Your task to perform on an android device: Clear the shopping cart on bestbuy.com. Add corsair k70 to the cart on bestbuy.com, then select checkout. Image 0: 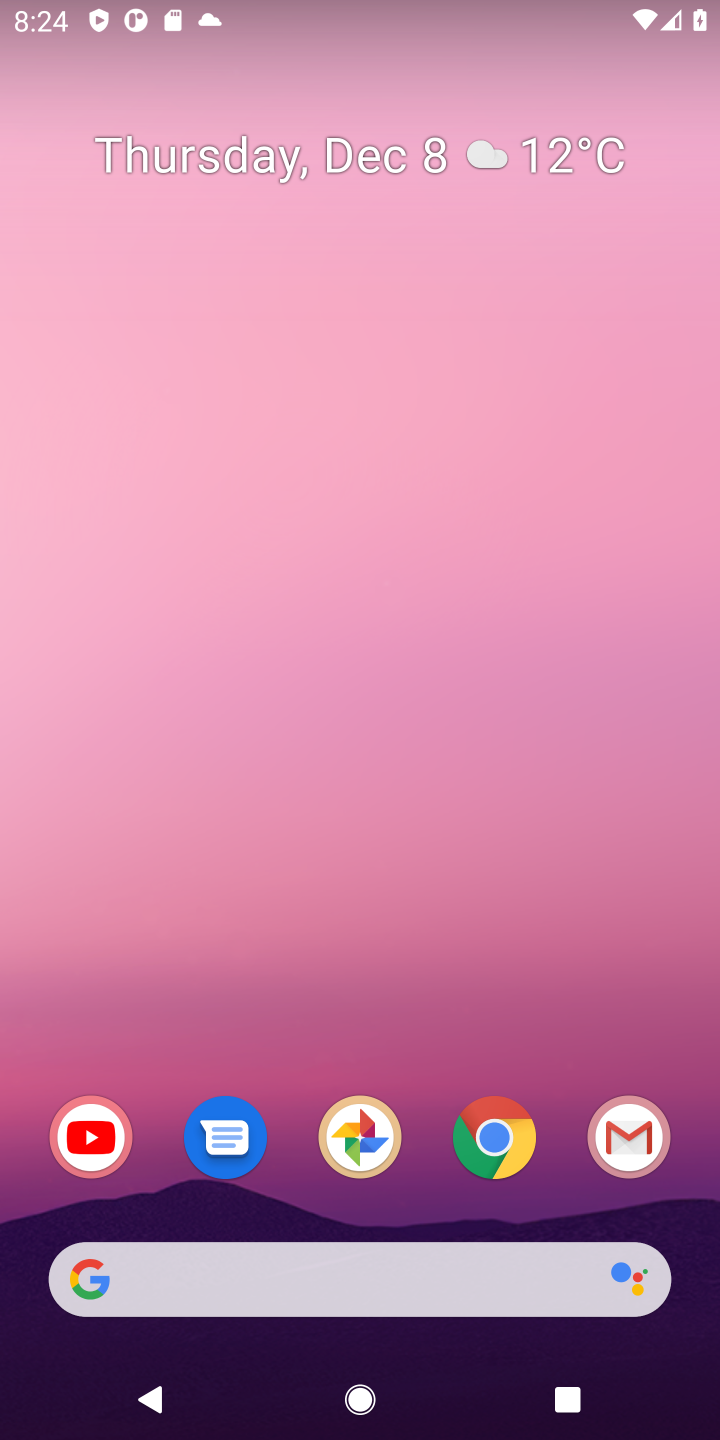
Step 0: click (488, 1160)
Your task to perform on an android device: Clear the shopping cart on bestbuy.com. Add corsair k70 to the cart on bestbuy.com, then select checkout. Image 1: 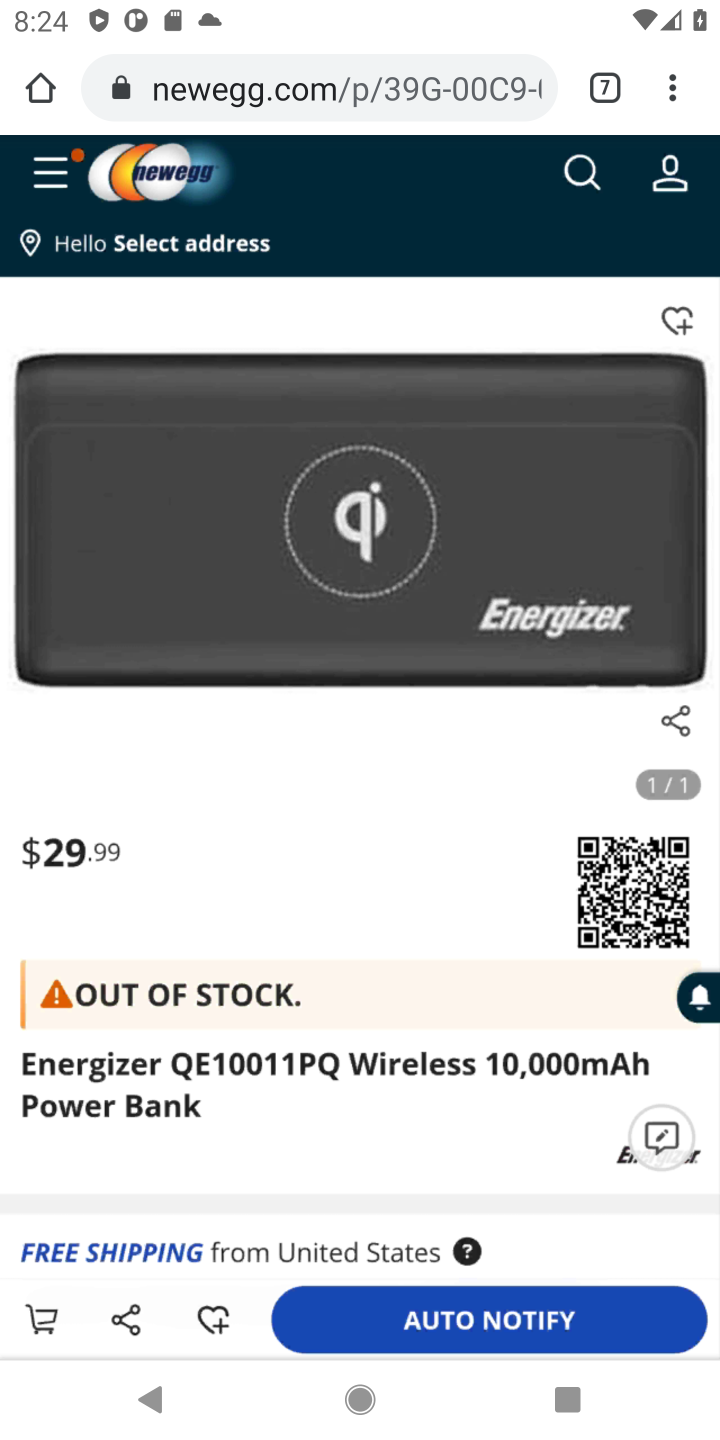
Step 1: click (580, 163)
Your task to perform on an android device: Clear the shopping cart on bestbuy.com. Add corsair k70 to the cart on bestbuy.com, then select checkout. Image 2: 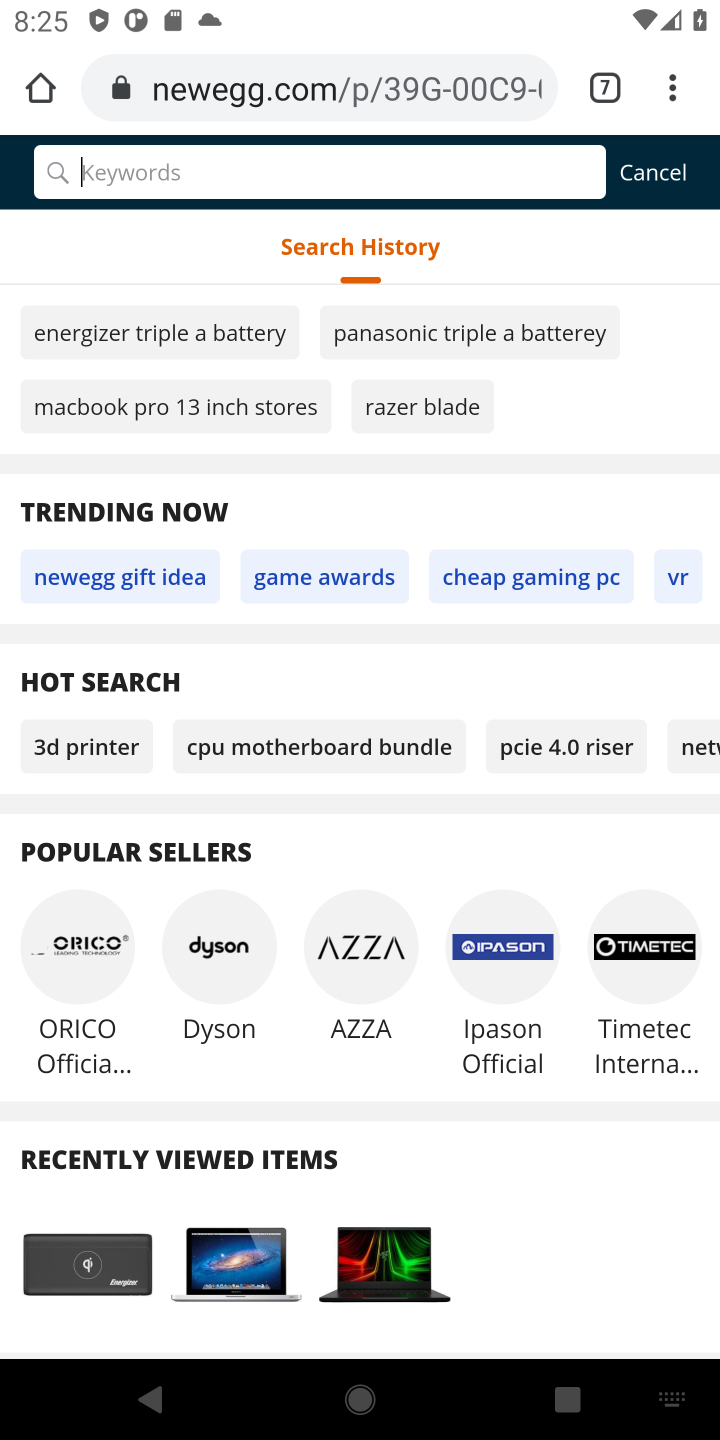
Step 2: click (605, 90)
Your task to perform on an android device: Clear the shopping cart on bestbuy.com. Add corsair k70 to the cart on bestbuy.com, then select checkout. Image 3: 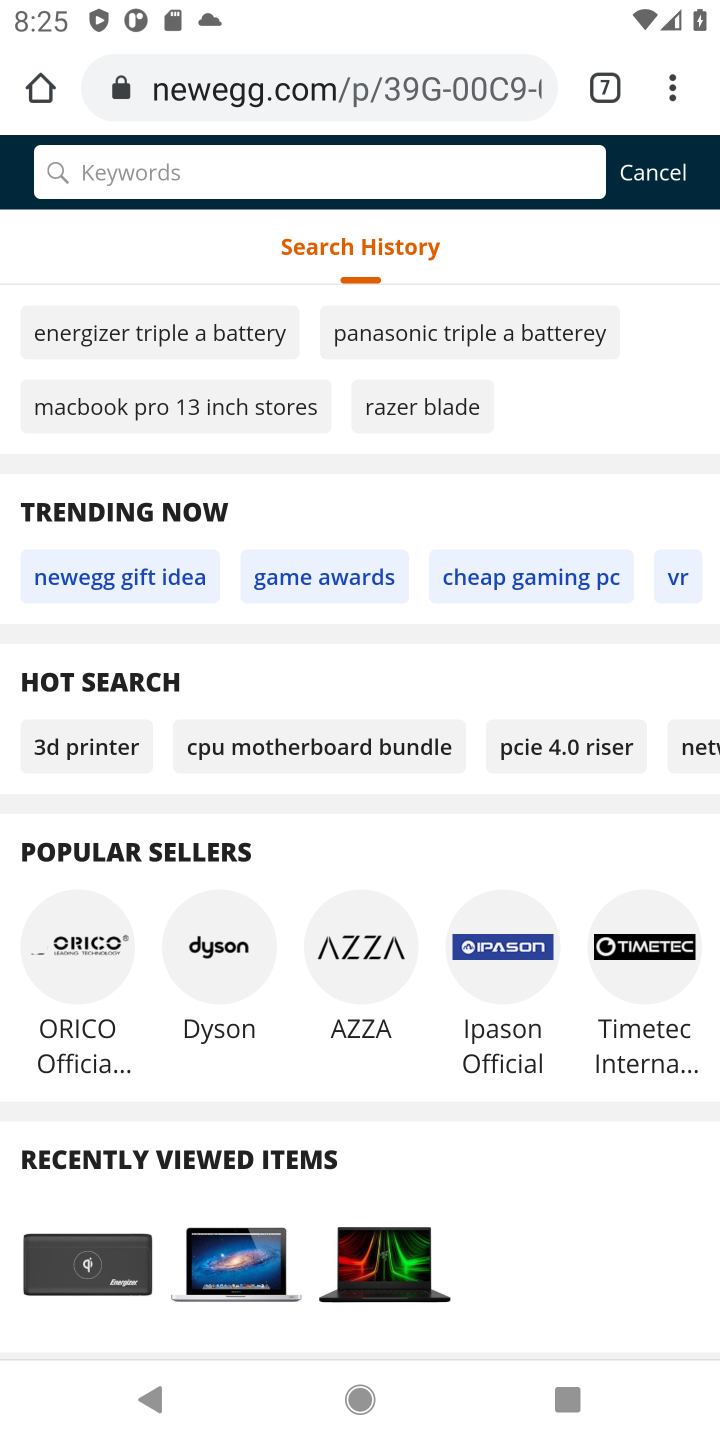
Step 3: click (605, 90)
Your task to perform on an android device: Clear the shopping cart on bestbuy.com. Add corsair k70 to the cart on bestbuy.com, then select checkout. Image 4: 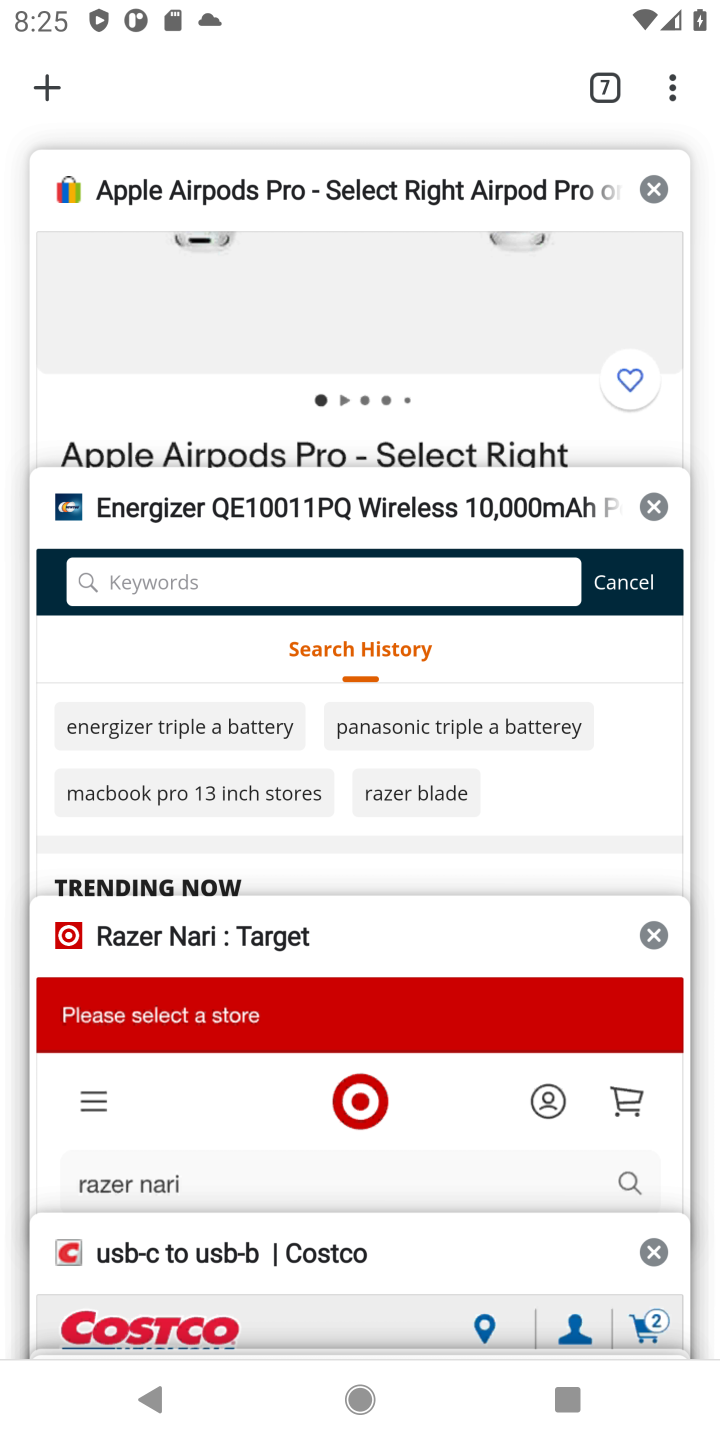
Step 4: drag from (290, 1292) to (476, 524)
Your task to perform on an android device: Clear the shopping cart on bestbuy.com. Add corsair k70 to the cart on bestbuy.com, then select checkout. Image 5: 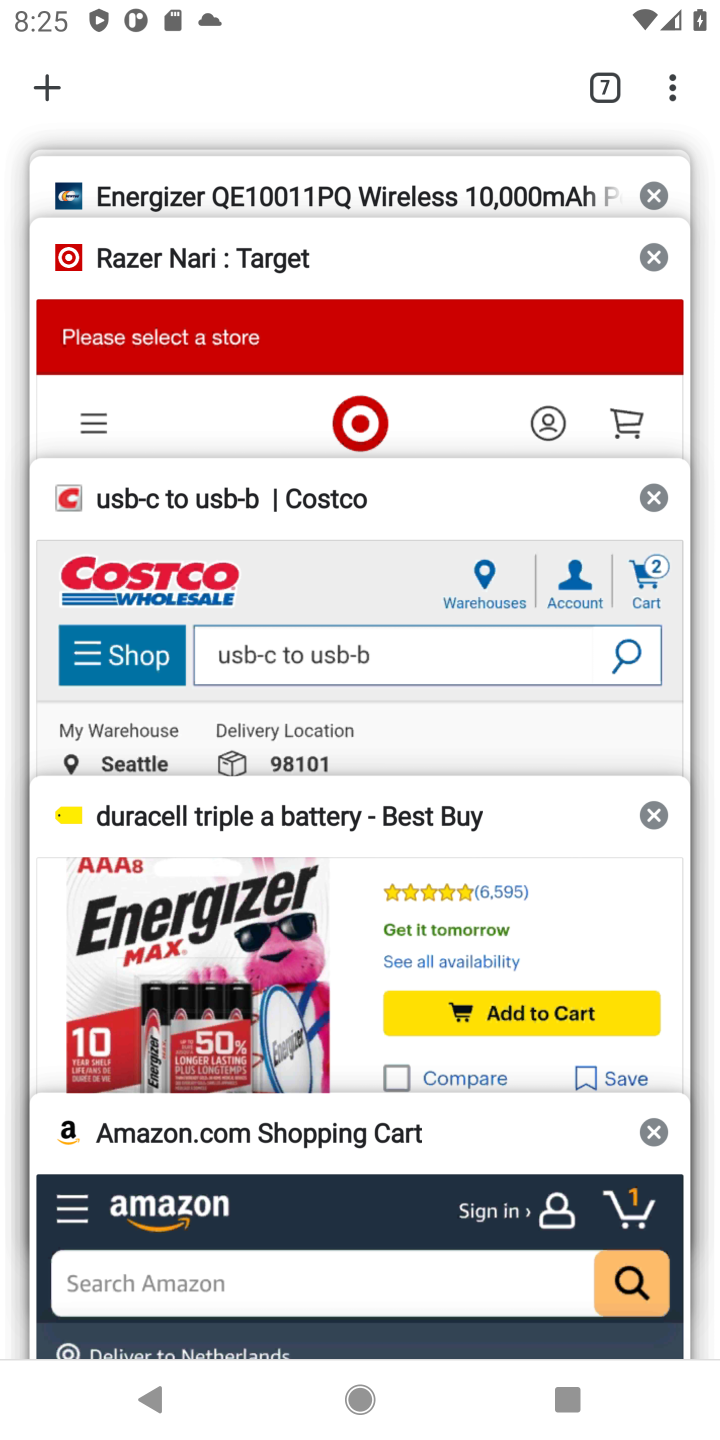
Step 5: click (302, 1002)
Your task to perform on an android device: Clear the shopping cart on bestbuy.com. Add corsair k70 to the cart on bestbuy.com, then select checkout. Image 6: 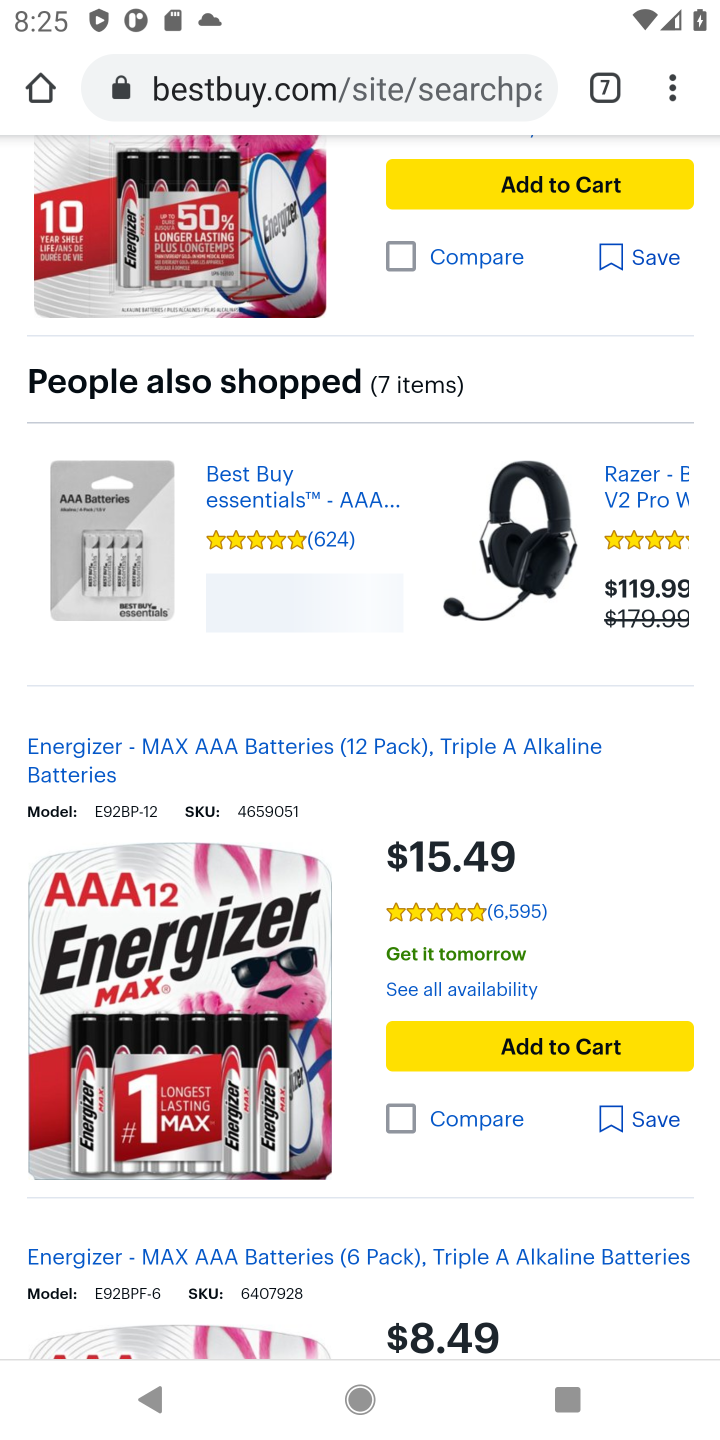
Step 6: drag from (653, 148) to (442, 1155)
Your task to perform on an android device: Clear the shopping cart on bestbuy.com. Add corsair k70 to the cart on bestbuy.com, then select checkout. Image 7: 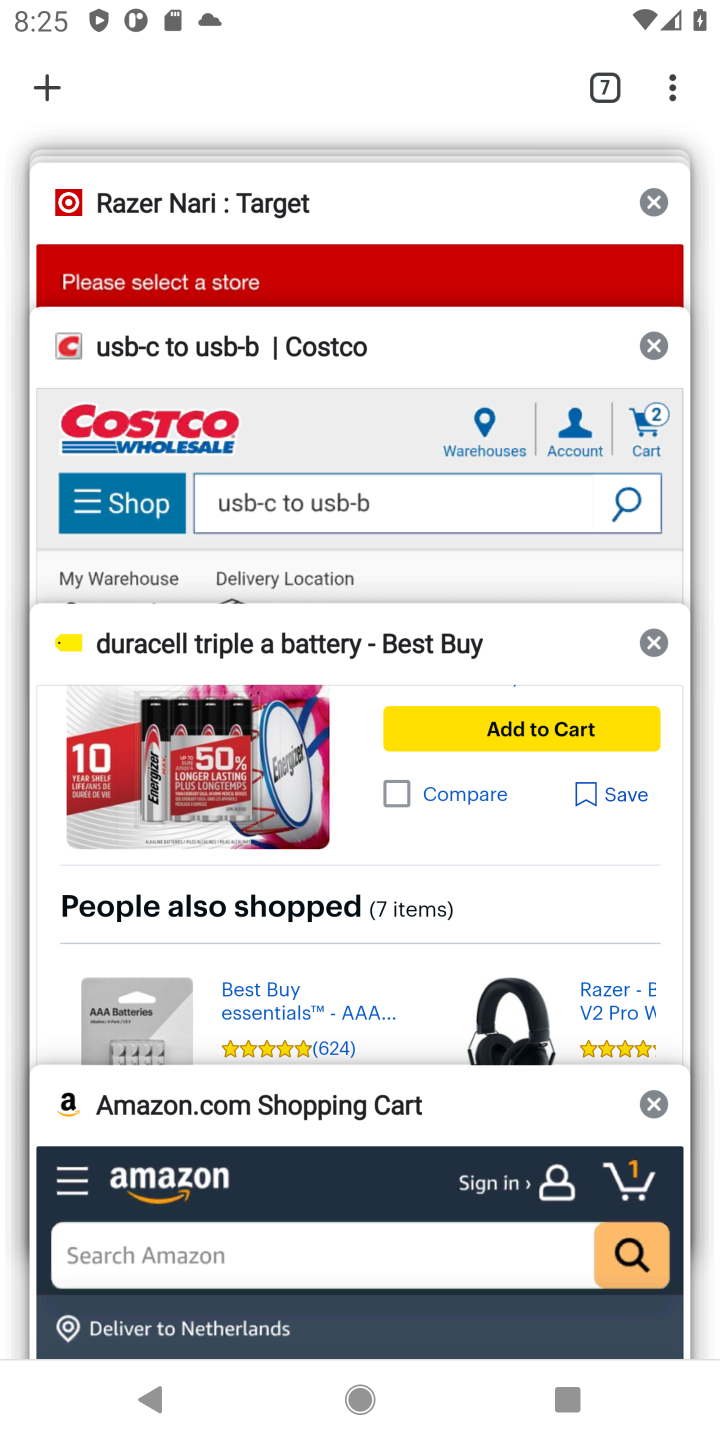
Step 7: click (505, 663)
Your task to perform on an android device: Clear the shopping cart on bestbuy.com. Add corsair k70 to the cart on bestbuy.com, then select checkout. Image 8: 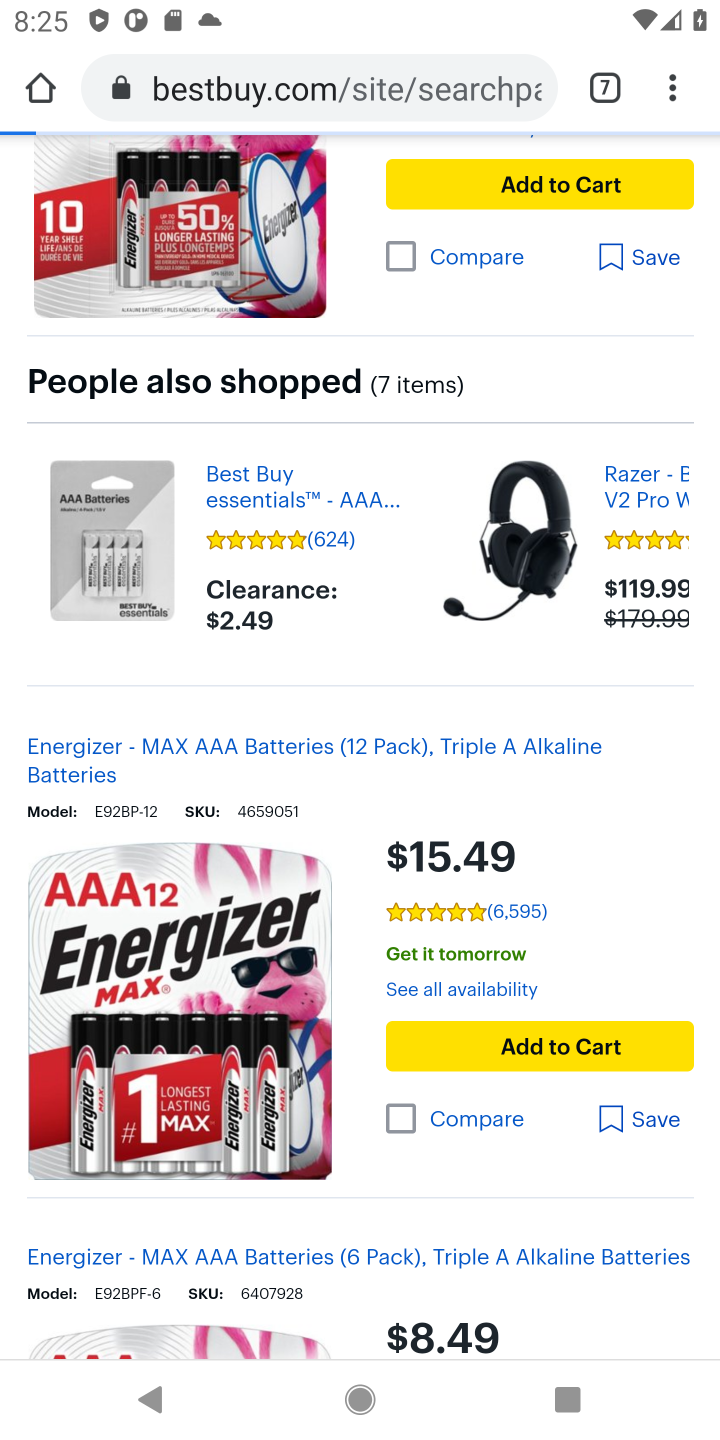
Step 8: drag from (557, 300) to (364, 1203)
Your task to perform on an android device: Clear the shopping cart on bestbuy.com. Add corsair k70 to the cart on bestbuy.com, then select checkout. Image 9: 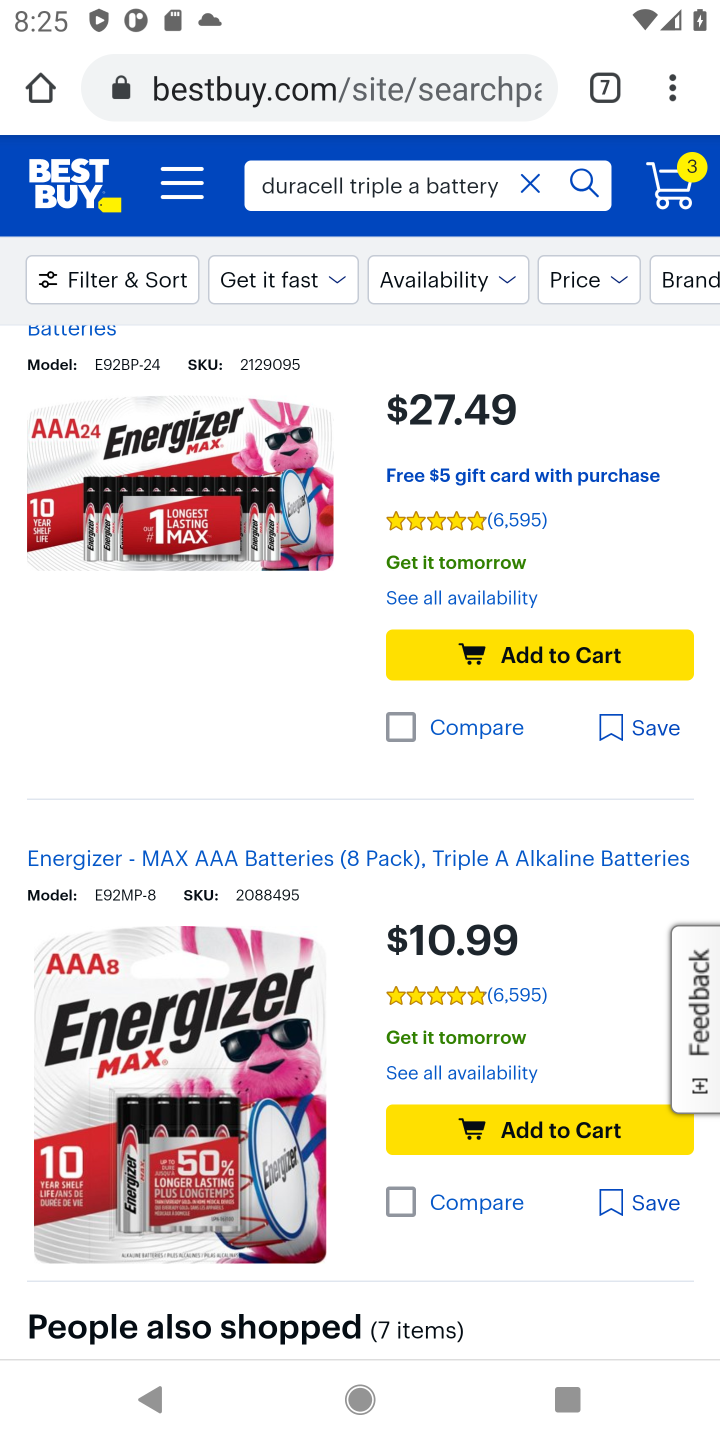
Step 9: click (680, 194)
Your task to perform on an android device: Clear the shopping cart on bestbuy.com. Add corsair k70 to the cart on bestbuy.com, then select checkout. Image 10: 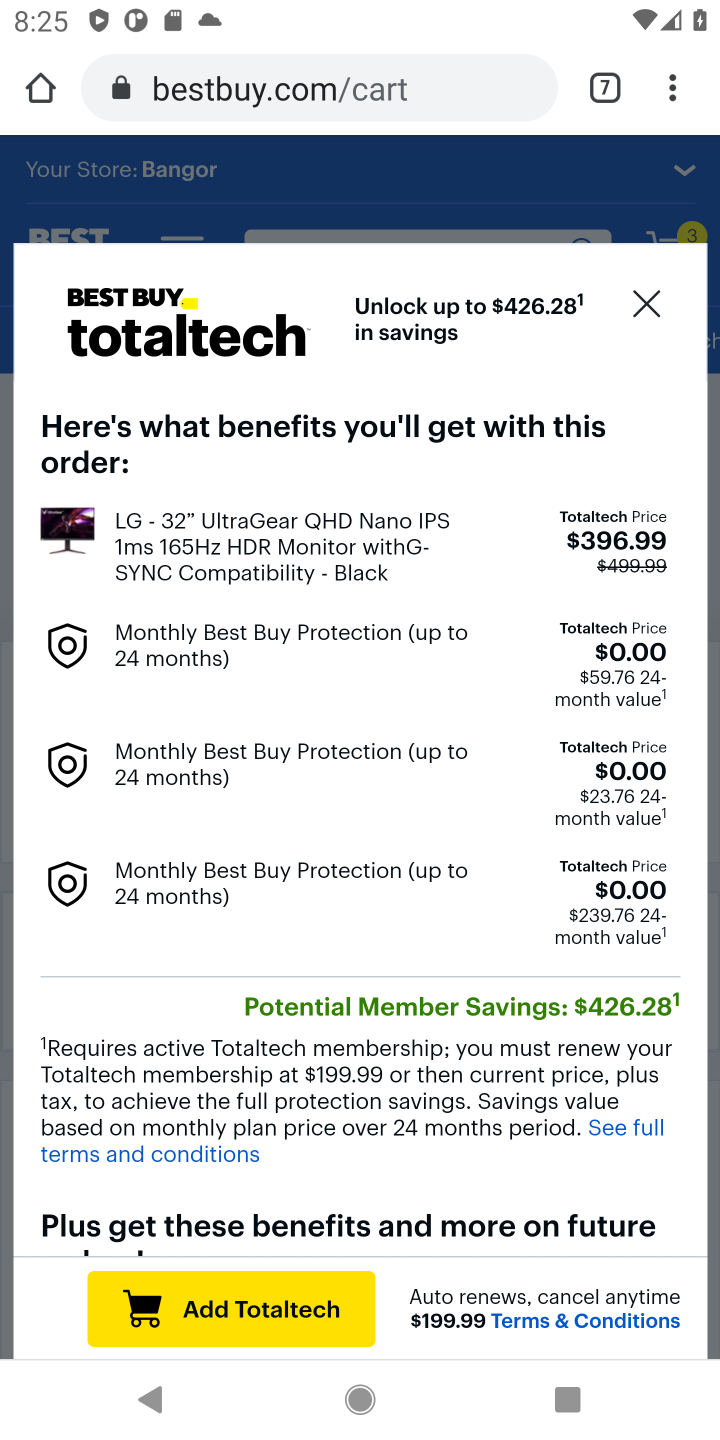
Step 10: click (643, 313)
Your task to perform on an android device: Clear the shopping cart on bestbuy.com. Add corsair k70 to the cart on bestbuy.com, then select checkout. Image 11: 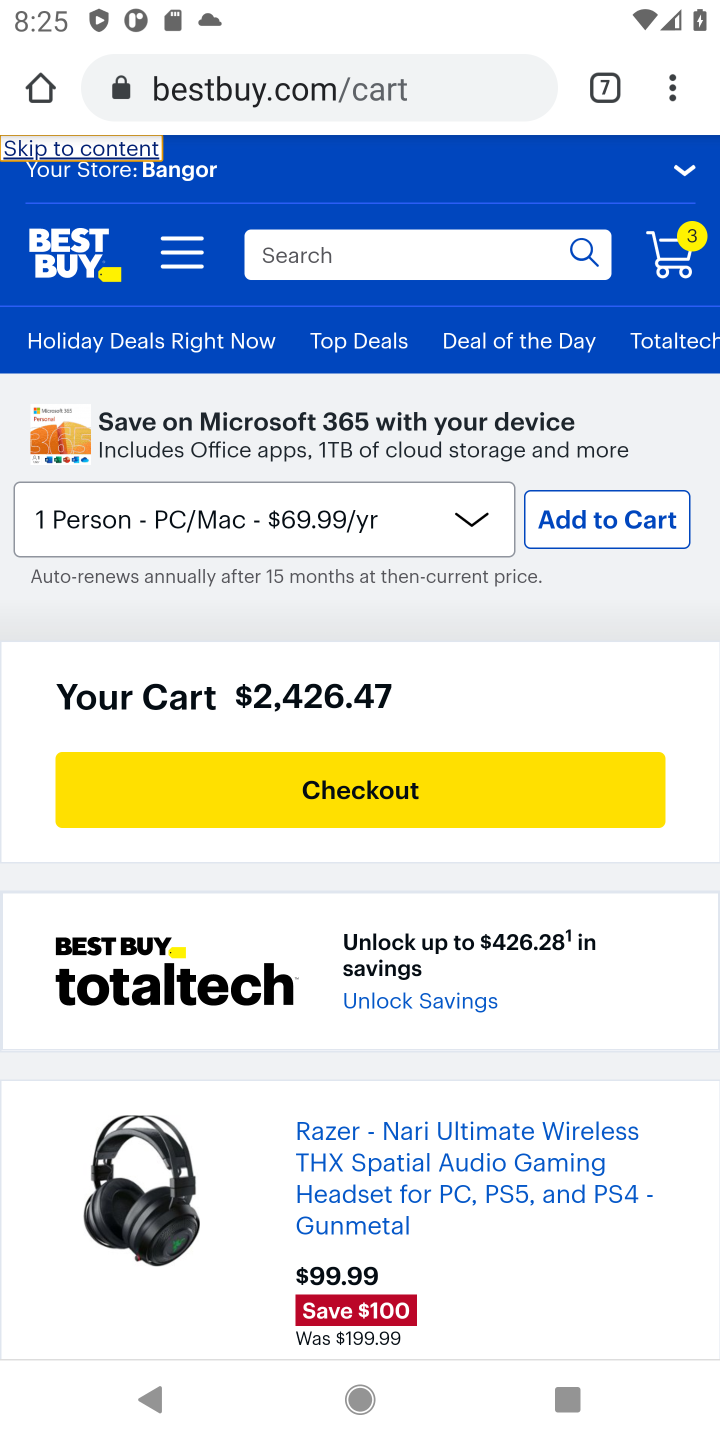
Step 11: drag from (526, 1037) to (552, 310)
Your task to perform on an android device: Clear the shopping cart on bestbuy.com. Add corsair k70 to the cart on bestbuy.com, then select checkout. Image 12: 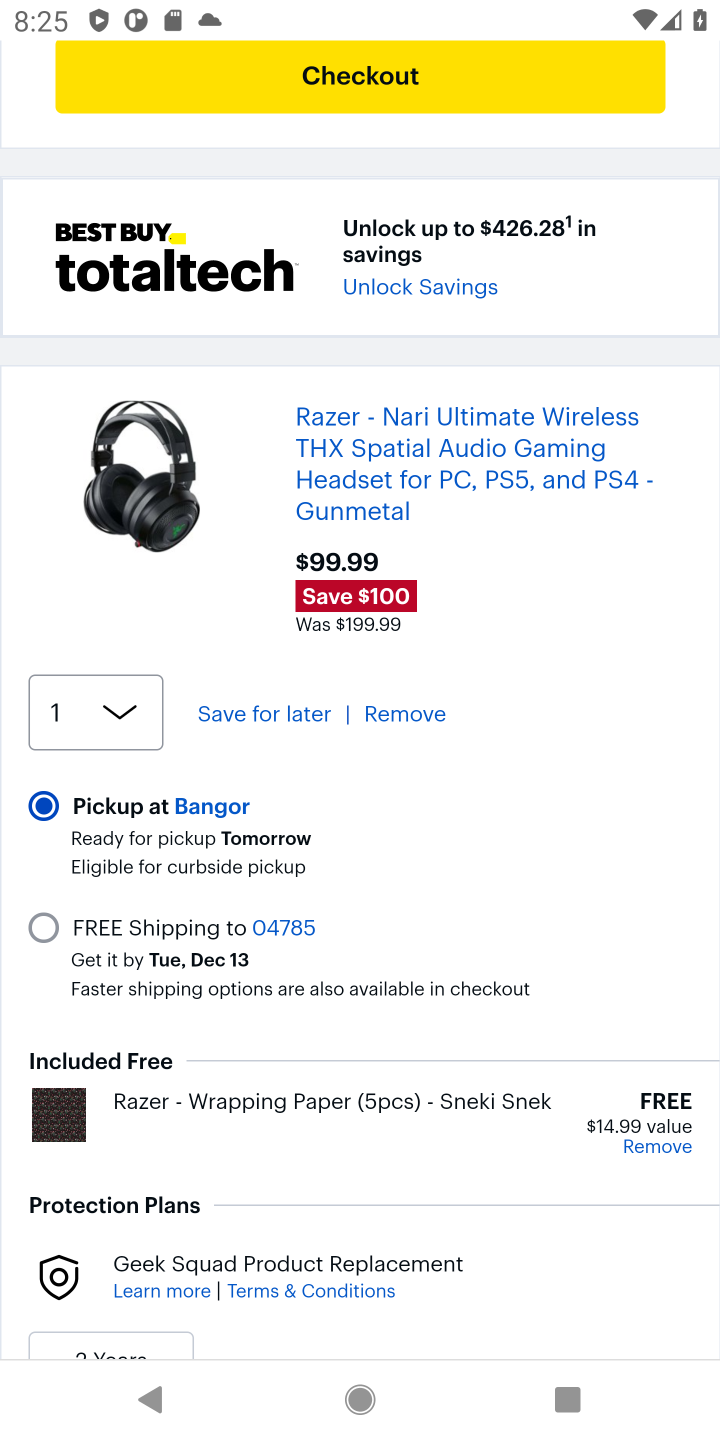
Step 12: click (392, 726)
Your task to perform on an android device: Clear the shopping cart on bestbuy.com. Add corsair k70 to the cart on bestbuy.com, then select checkout. Image 13: 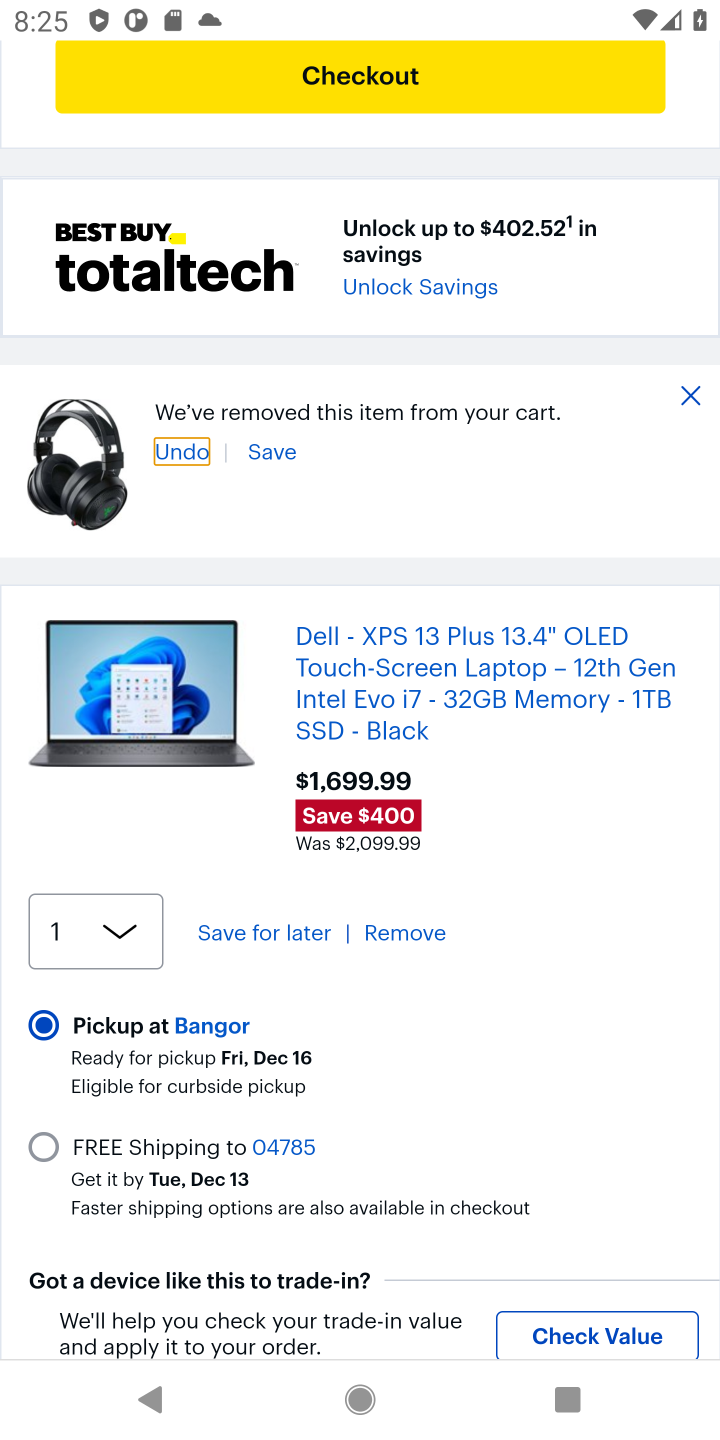
Step 13: click (375, 937)
Your task to perform on an android device: Clear the shopping cart on bestbuy.com. Add corsair k70 to the cart on bestbuy.com, then select checkout. Image 14: 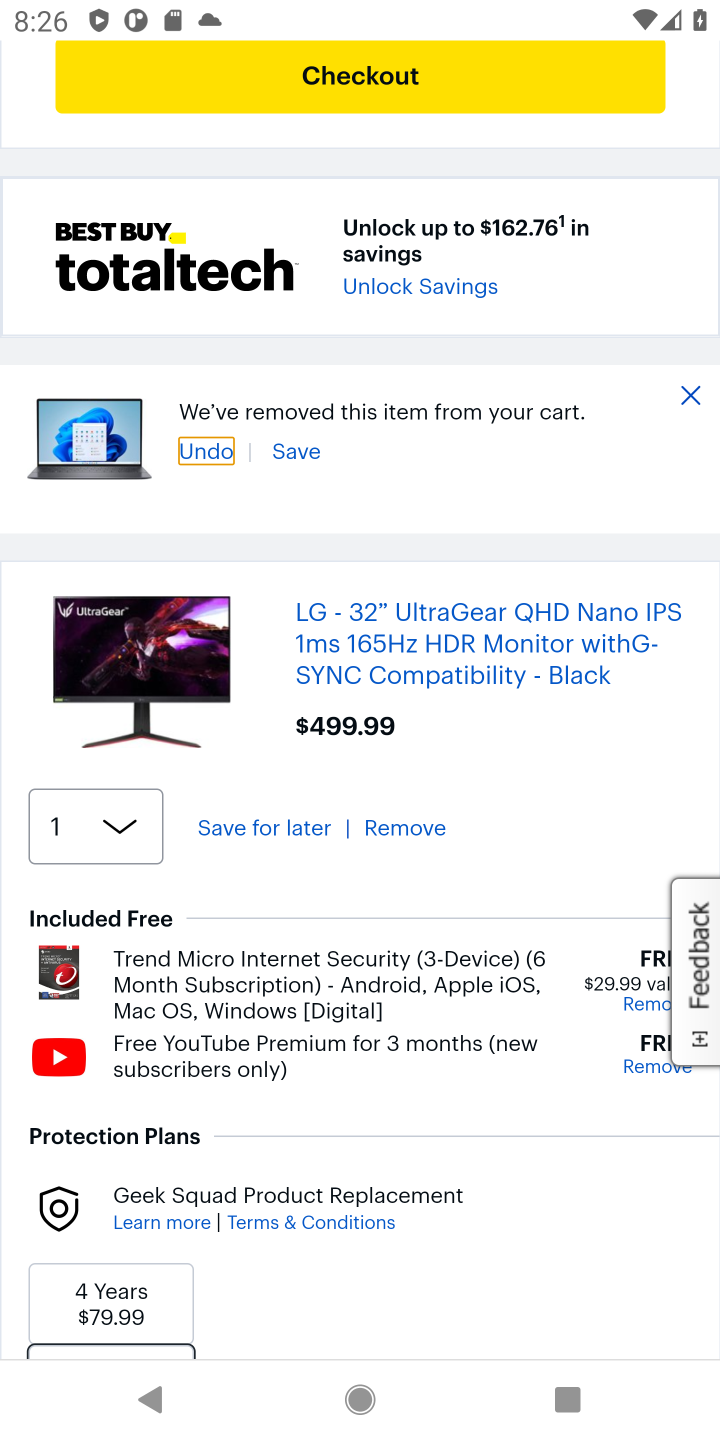
Step 14: click (428, 822)
Your task to perform on an android device: Clear the shopping cart on bestbuy.com. Add corsair k70 to the cart on bestbuy.com, then select checkout. Image 15: 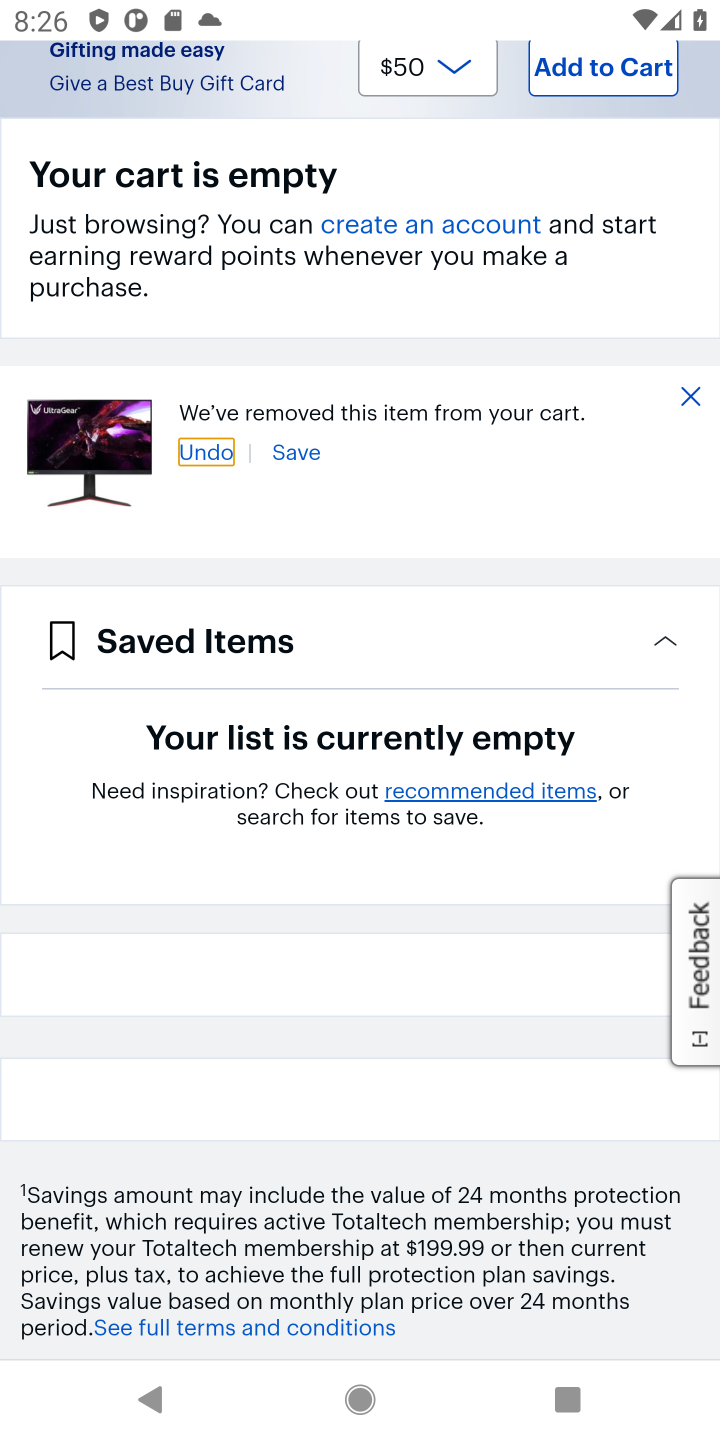
Step 15: drag from (428, 239) to (417, 710)
Your task to perform on an android device: Clear the shopping cart on bestbuy.com. Add corsair k70 to the cart on bestbuy.com, then select checkout. Image 16: 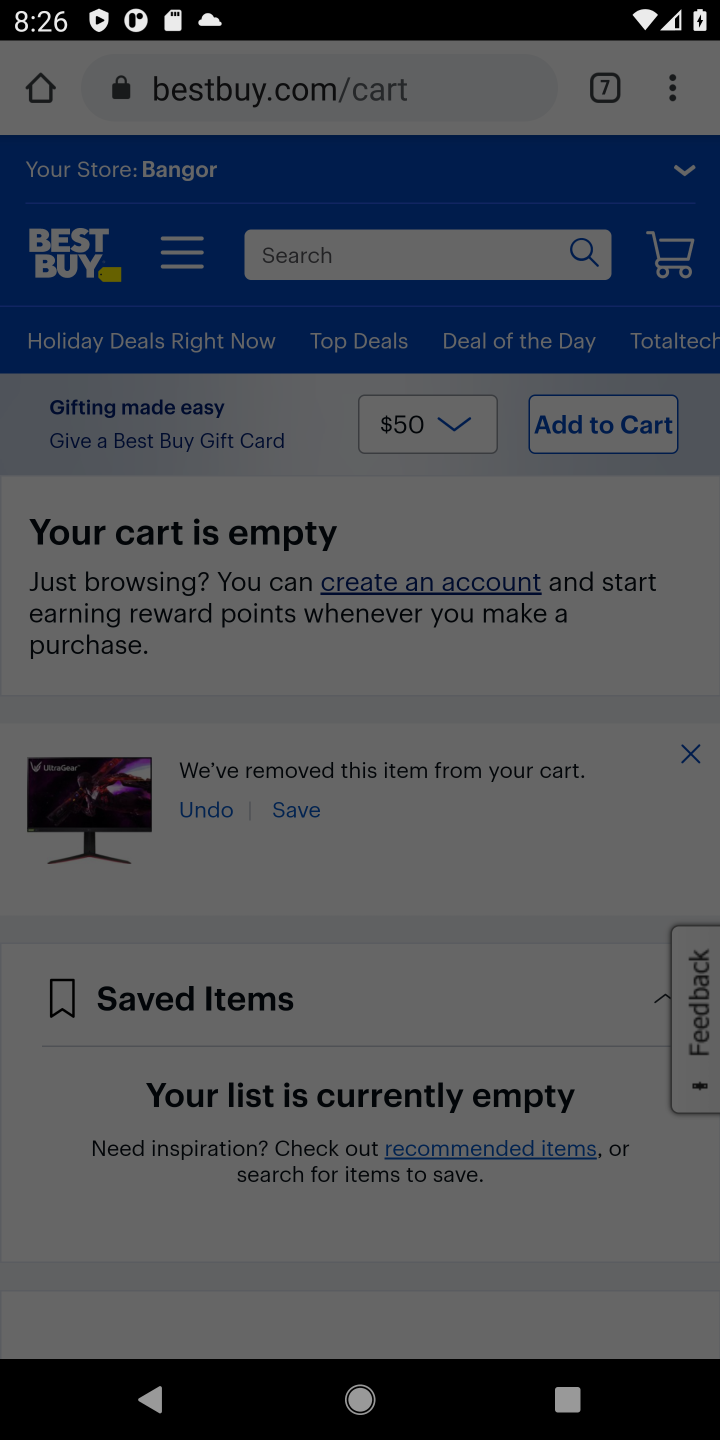
Step 16: click (386, 261)
Your task to perform on an android device: Clear the shopping cart on bestbuy.com. Add corsair k70 to the cart on bestbuy.com, then select checkout. Image 17: 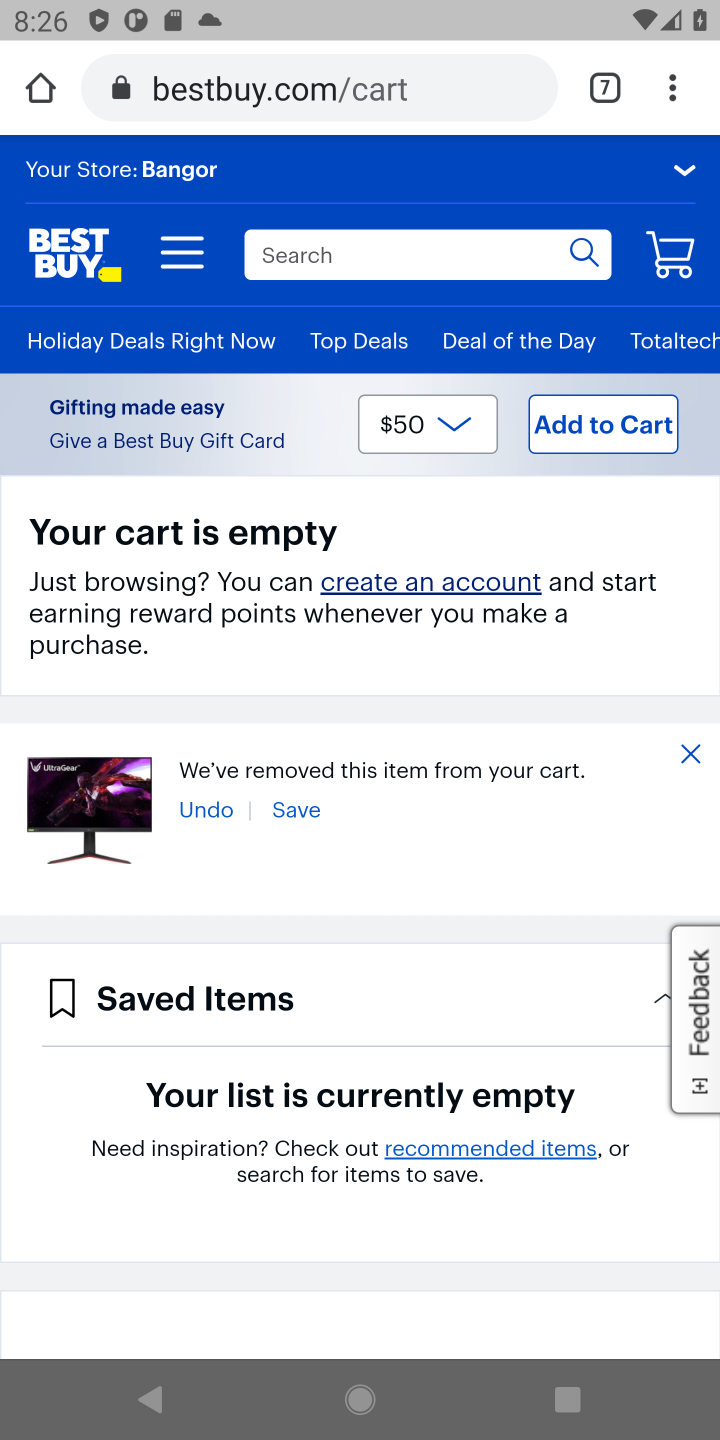
Step 17: click (386, 261)
Your task to perform on an android device: Clear the shopping cart on bestbuy.com. Add corsair k70 to the cart on bestbuy.com, then select checkout. Image 18: 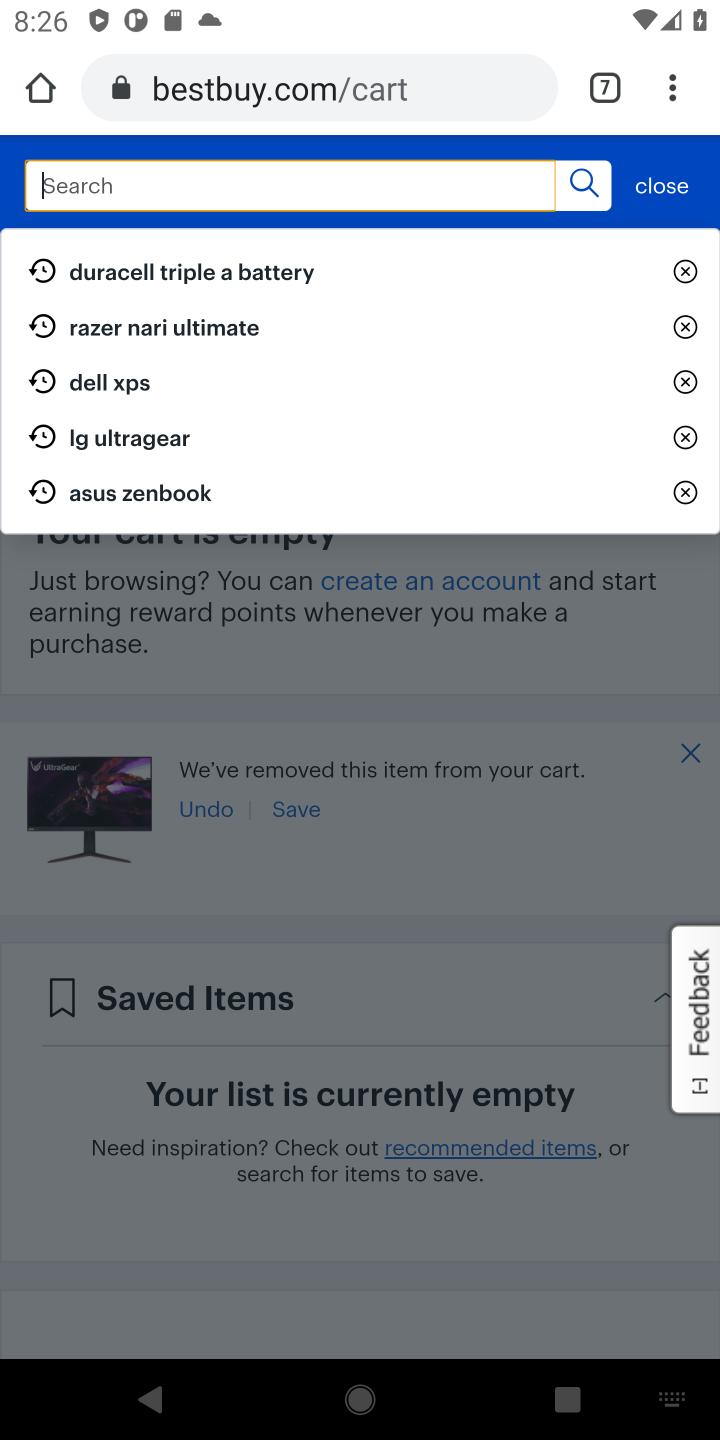
Step 18: type "corsair k70"
Your task to perform on an android device: Clear the shopping cart on bestbuy.com. Add corsair k70 to the cart on bestbuy.com, then select checkout. Image 19: 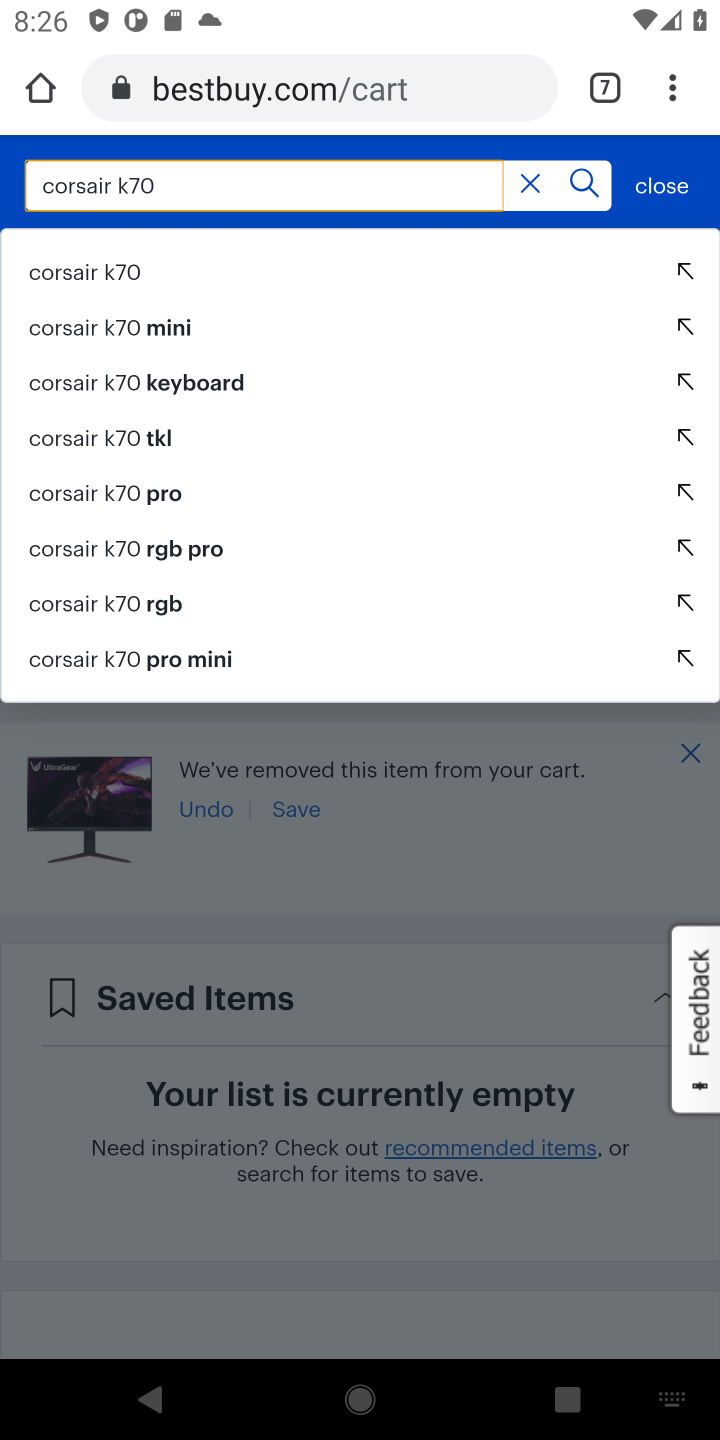
Step 19: click (587, 179)
Your task to perform on an android device: Clear the shopping cart on bestbuy.com. Add corsair k70 to the cart on bestbuy.com, then select checkout. Image 20: 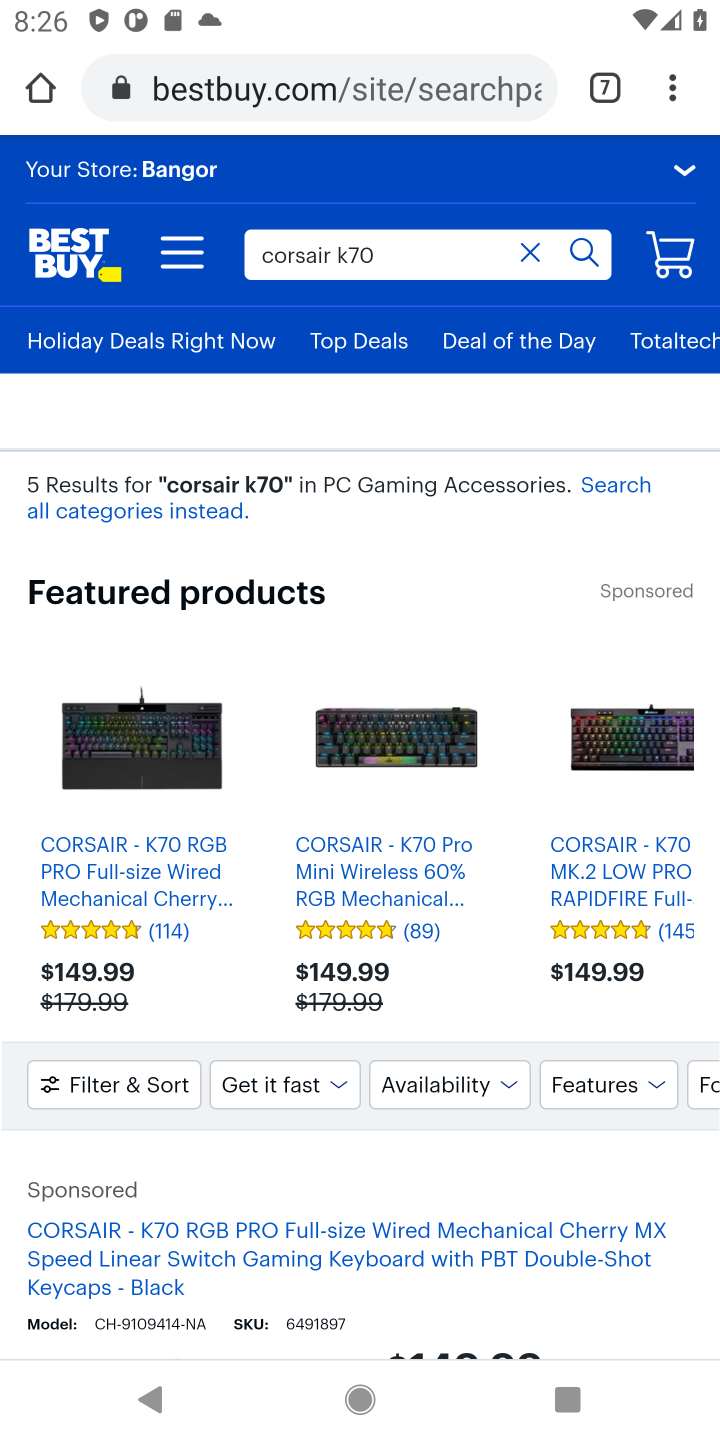
Step 20: click (360, 1254)
Your task to perform on an android device: Clear the shopping cart on bestbuy.com. Add corsair k70 to the cart on bestbuy.com, then select checkout. Image 21: 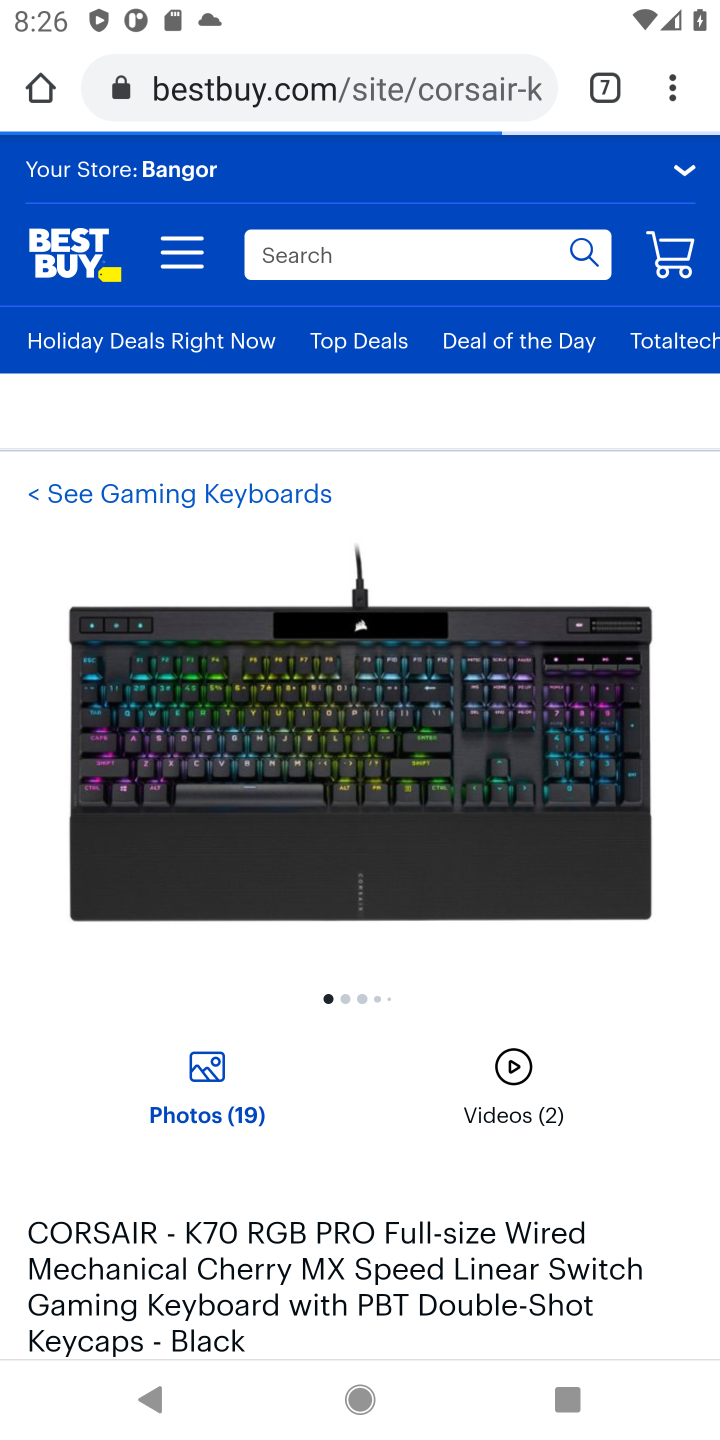
Step 21: drag from (400, 1202) to (225, 200)
Your task to perform on an android device: Clear the shopping cart on bestbuy.com. Add corsair k70 to the cart on bestbuy.com, then select checkout. Image 22: 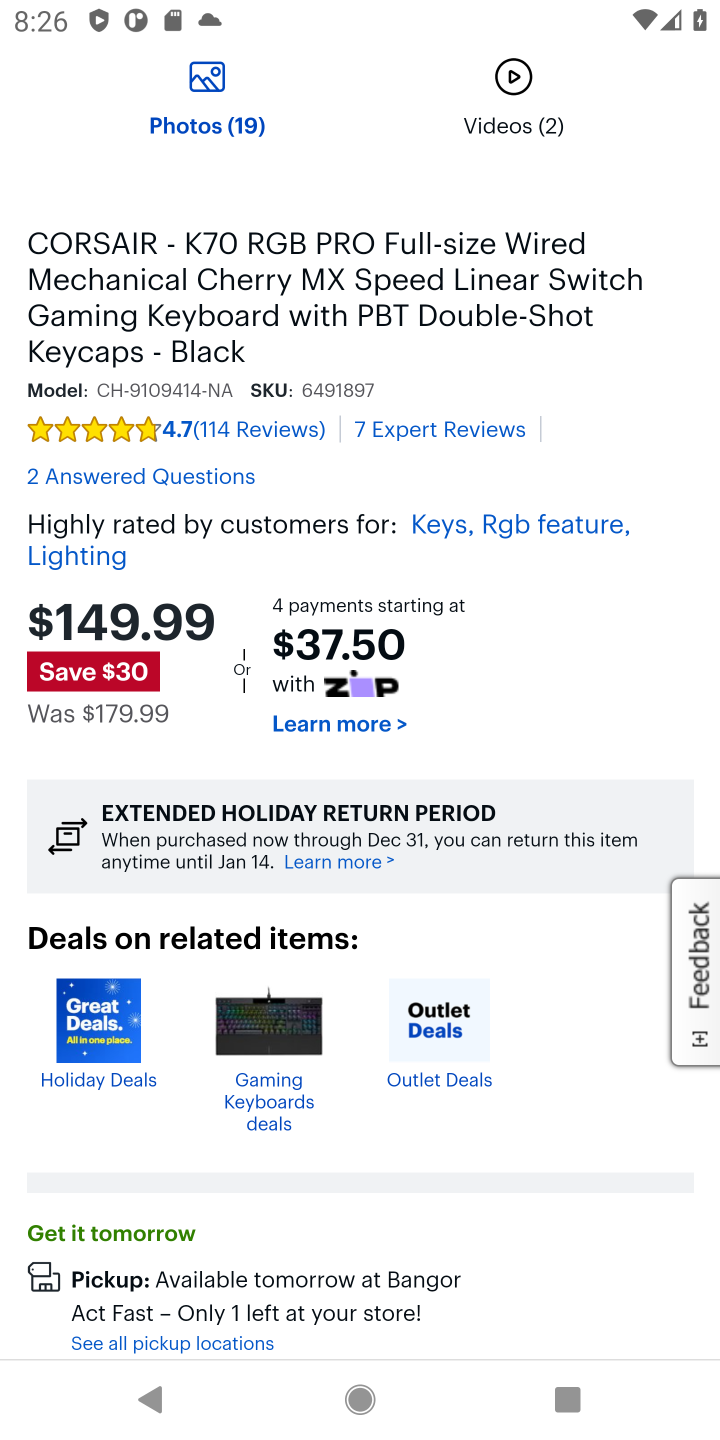
Step 22: drag from (600, 1079) to (338, 143)
Your task to perform on an android device: Clear the shopping cart on bestbuy.com. Add corsair k70 to the cart on bestbuy.com, then select checkout. Image 23: 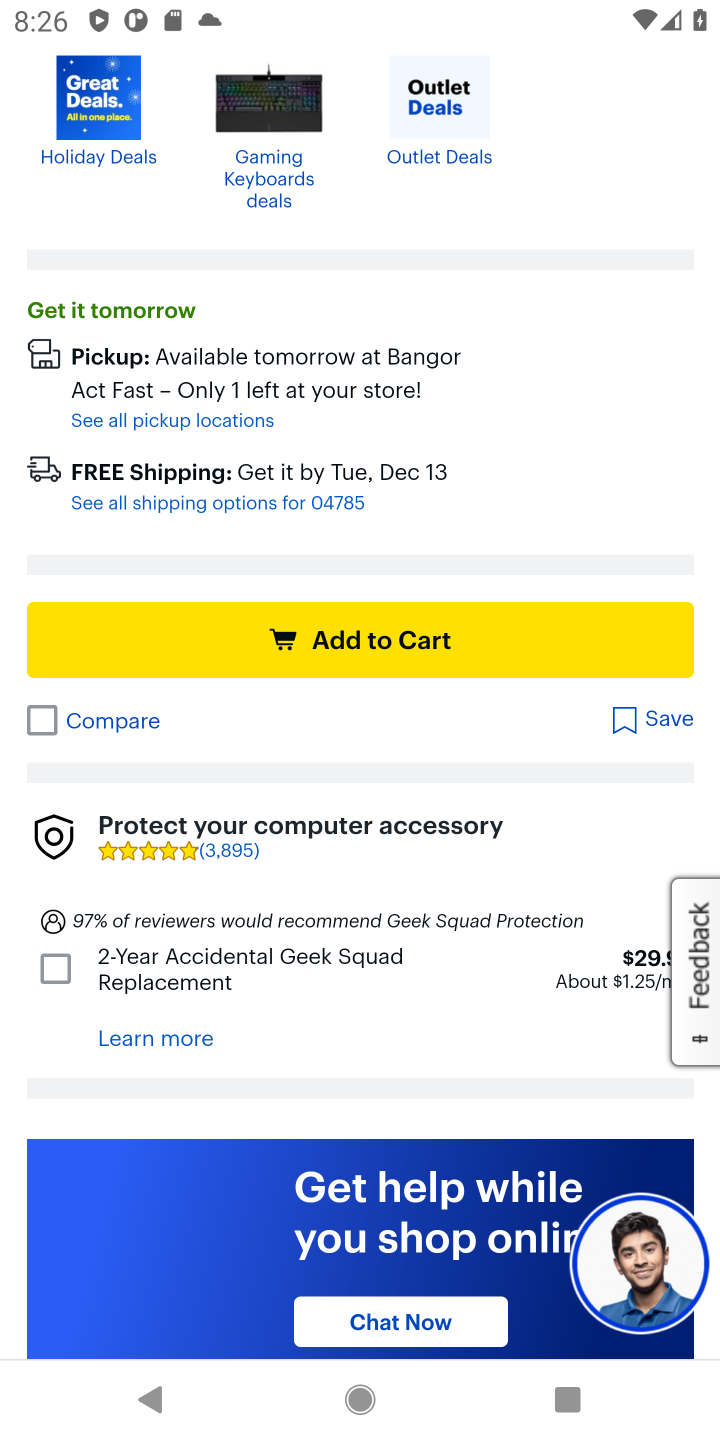
Step 23: click (414, 642)
Your task to perform on an android device: Clear the shopping cart on bestbuy.com. Add corsair k70 to the cart on bestbuy.com, then select checkout. Image 24: 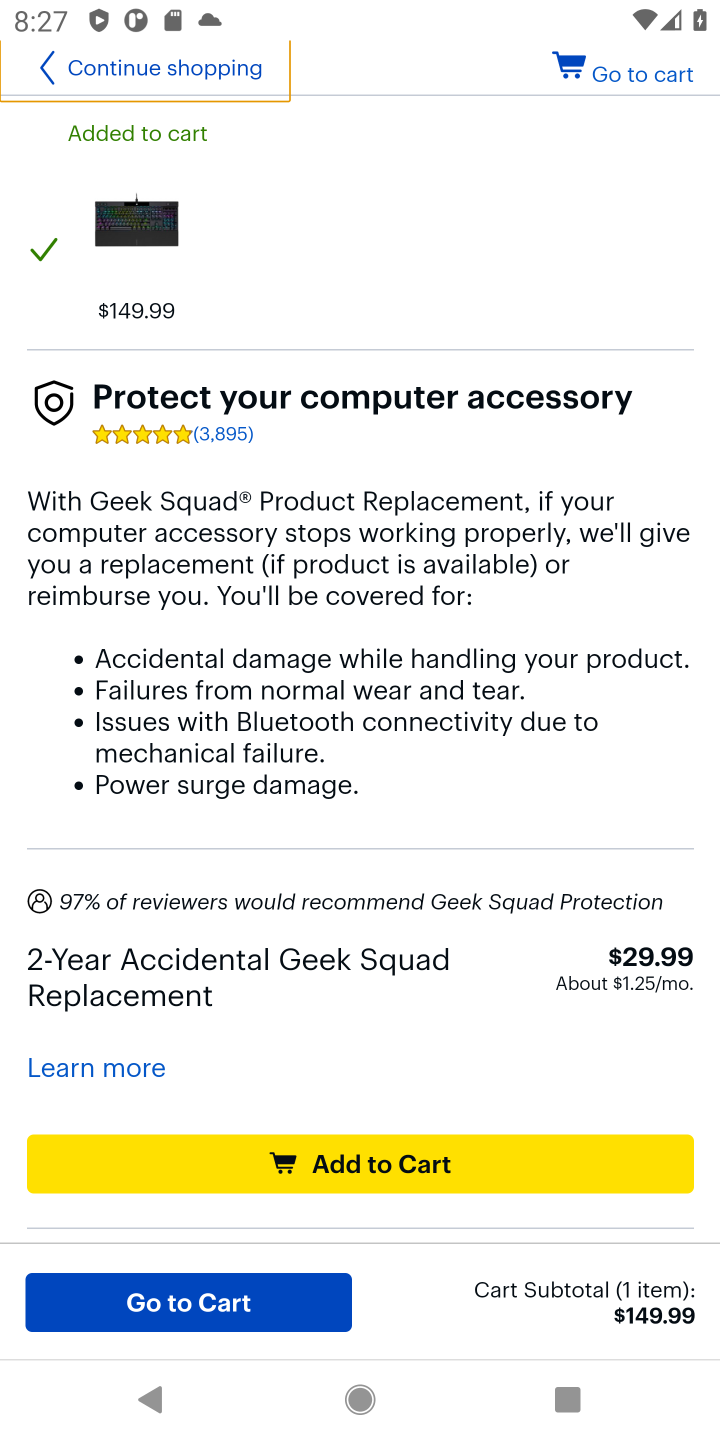
Step 24: task complete